Your task to perform on an android device: turn off priority inbox in the gmail app Image 0: 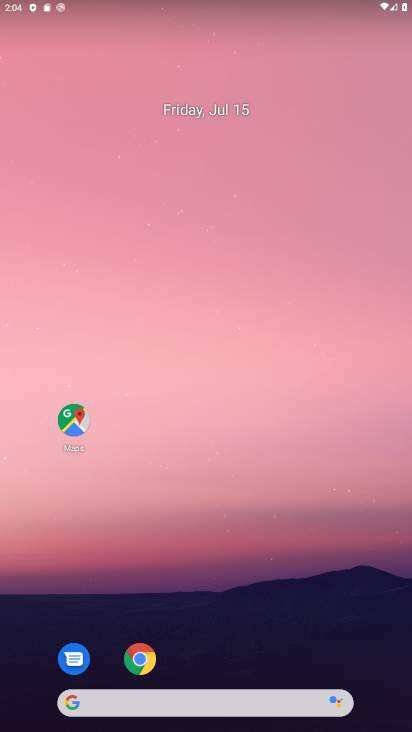
Step 0: drag from (266, 561) to (300, 185)
Your task to perform on an android device: turn off priority inbox in the gmail app Image 1: 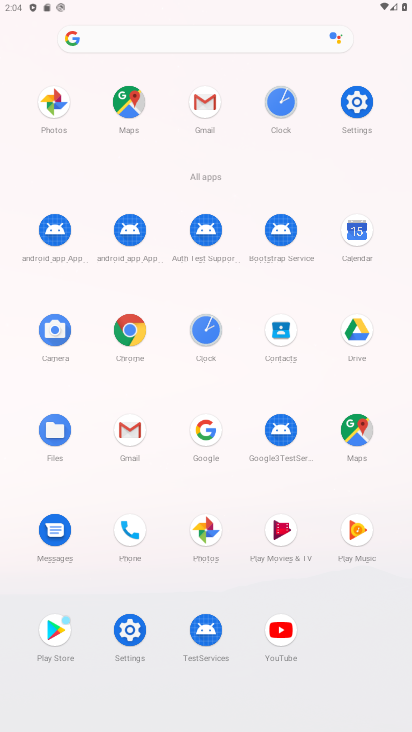
Step 1: drag from (205, 103) to (117, 182)
Your task to perform on an android device: turn off priority inbox in the gmail app Image 2: 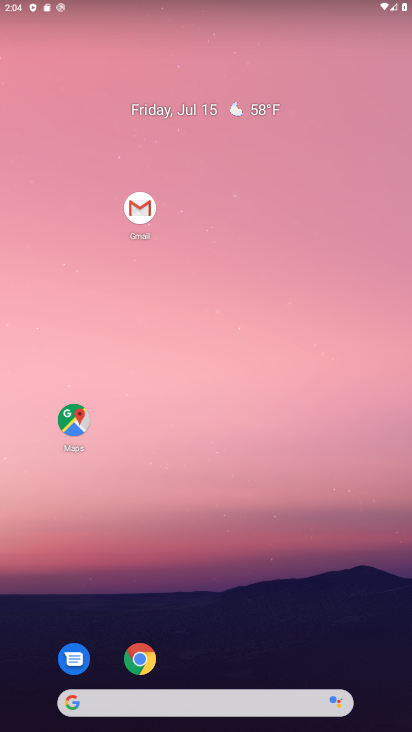
Step 2: click (143, 216)
Your task to perform on an android device: turn off priority inbox in the gmail app Image 3: 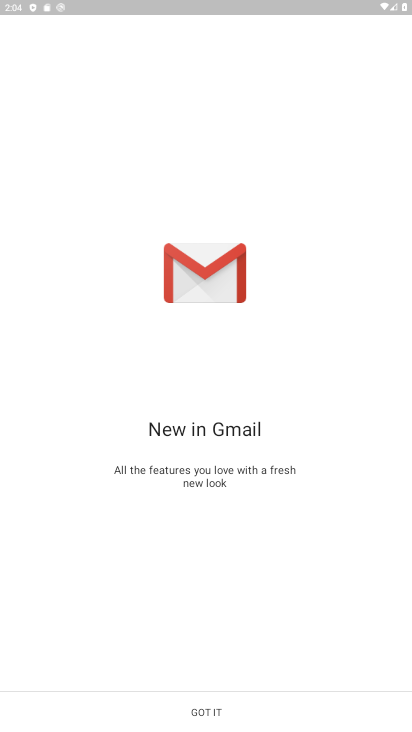
Step 3: click (261, 702)
Your task to perform on an android device: turn off priority inbox in the gmail app Image 4: 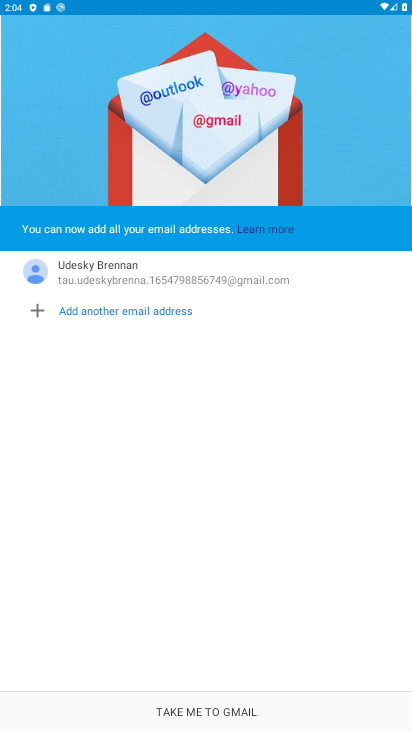
Step 4: click (221, 708)
Your task to perform on an android device: turn off priority inbox in the gmail app Image 5: 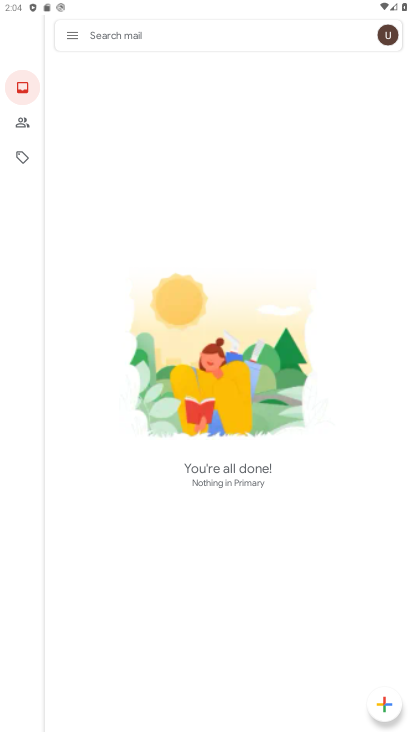
Step 5: click (69, 28)
Your task to perform on an android device: turn off priority inbox in the gmail app Image 6: 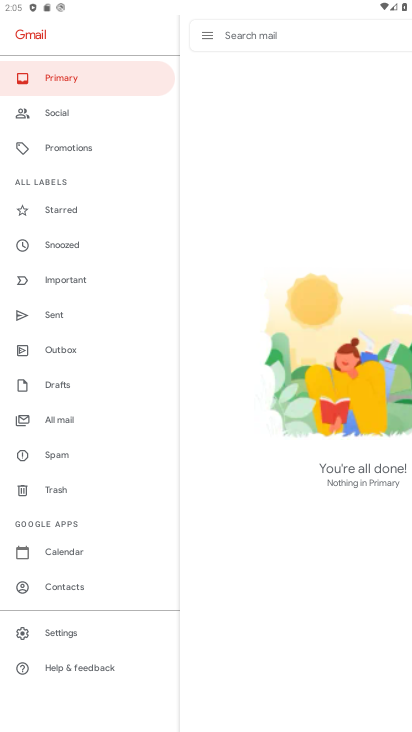
Step 6: click (84, 632)
Your task to perform on an android device: turn off priority inbox in the gmail app Image 7: 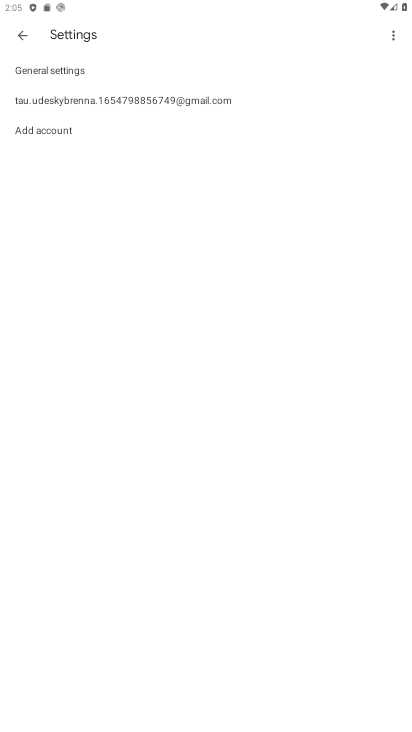
Step 7: click (145, 103)
Your task to perform on an android device: turn off priority inbox in the gmail app Image 8: 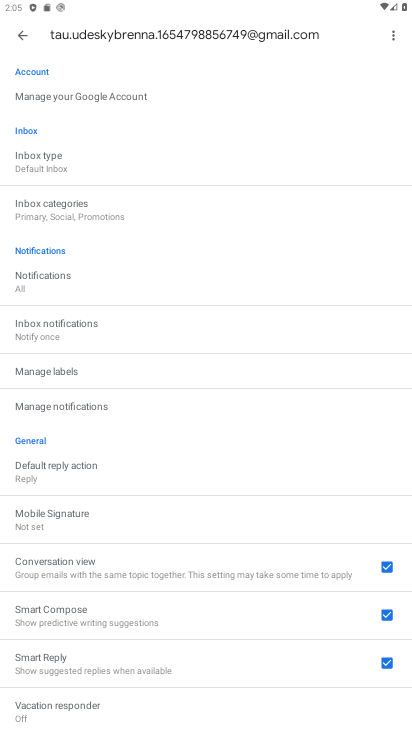
Step 8: task complete